Your task to perform on an android device: turn notification dots on Image 0: 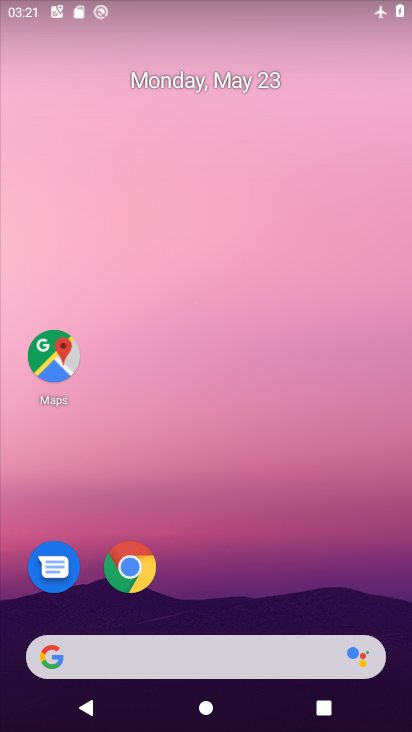
Step 0: drag from (43, 672) to (14, 700)
Your task to perform on an android device: turn notification dots on Image 1: 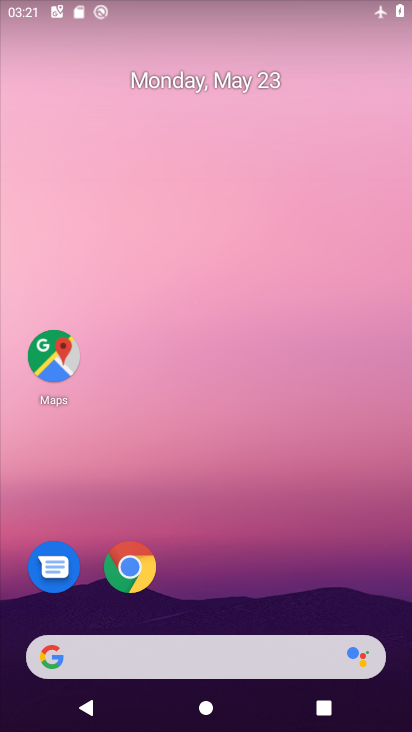
Step 1: drag from (4, 702) to (271, 157)
Your task to perform on an android device: turn notification dots on Image 2: 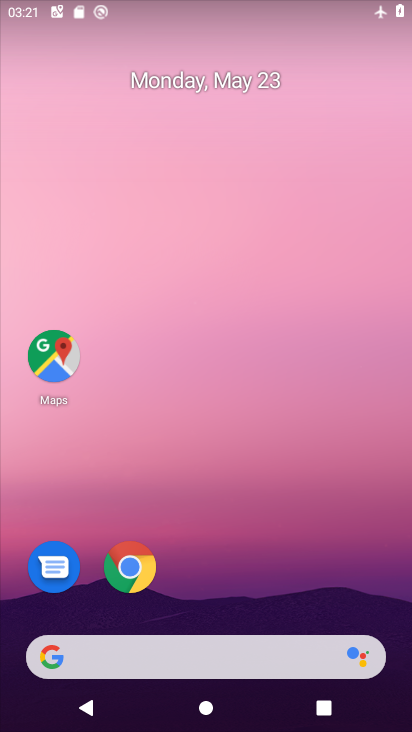
Step 2: drag from (120, 441) to (269, 100)
Your task to perform on an android device: turn notification dots on Image 3: 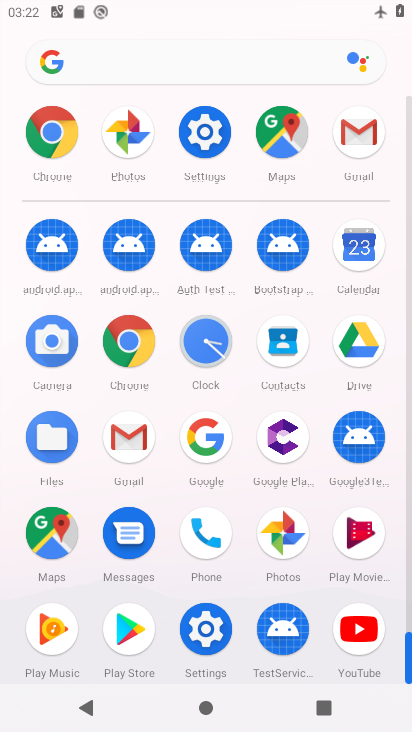
Step 3: click (191, 628)
Your task to perform on an android device: turn notification dots on Image 4: 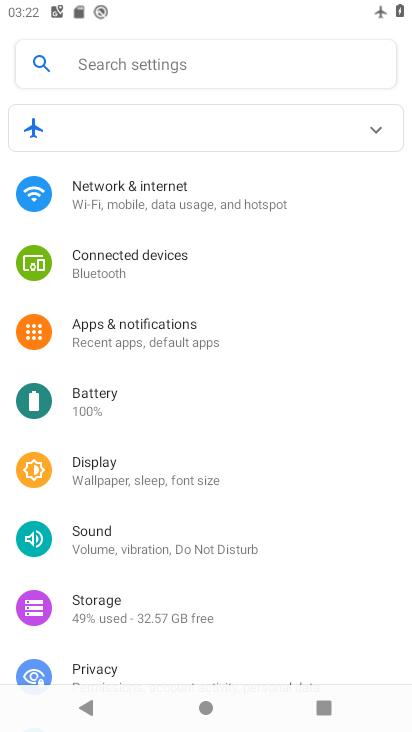
Step 4: click (162, 334)
Your task to perform on an android device: turn notification dots on Image 5: 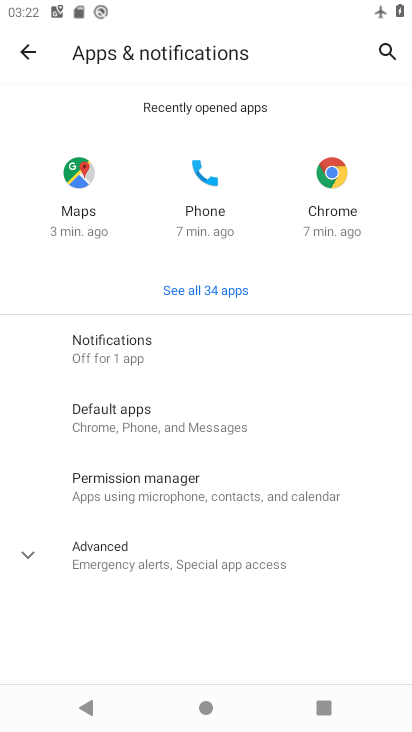
Step 5: click (165, 344)
Your task to perform on an android device: turn notification dots on Image 6: 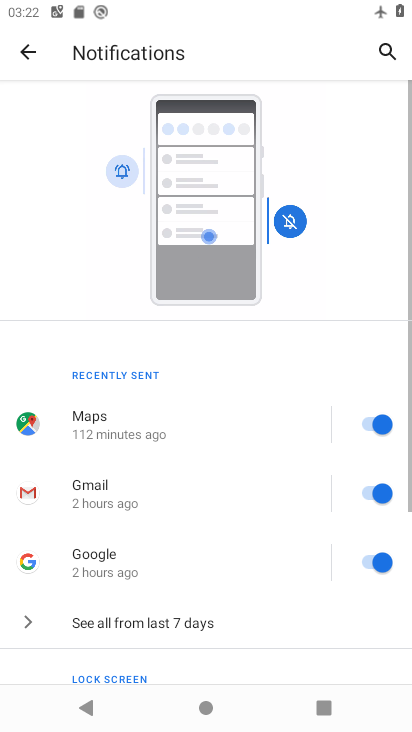
Step 6: drag from (12, 640) to (247, 174)
Your task to perform on an android device: turn notification dots on Image 7: 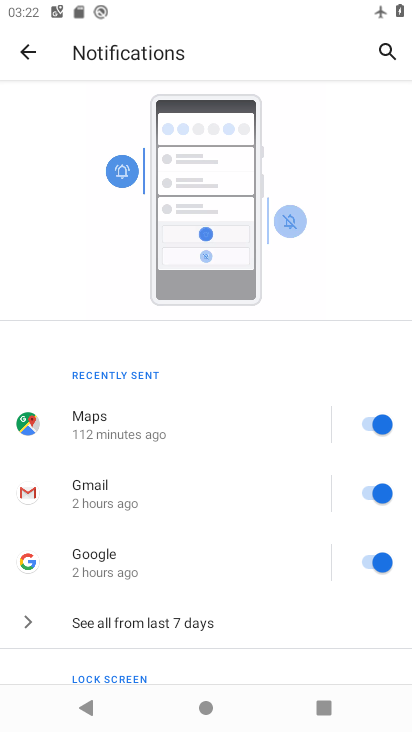
Step 7: drag from (29, 520) to (208, 202)
Your task to perform on an android device: turn notification dots on Image 8: 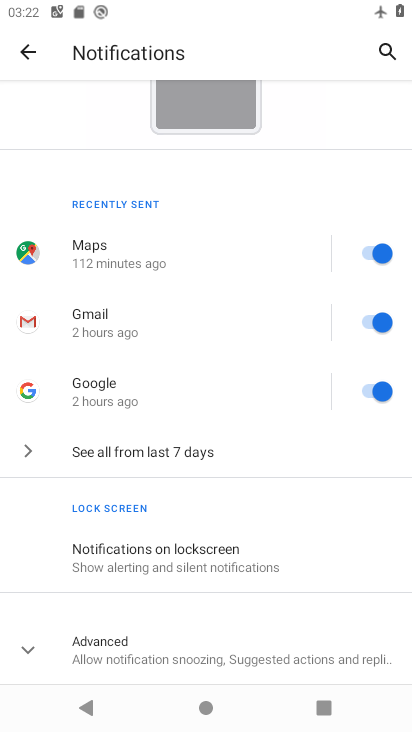
Step 8: click (146, 646)
Your task to perform on an android device: turn notification dots on Image 9: 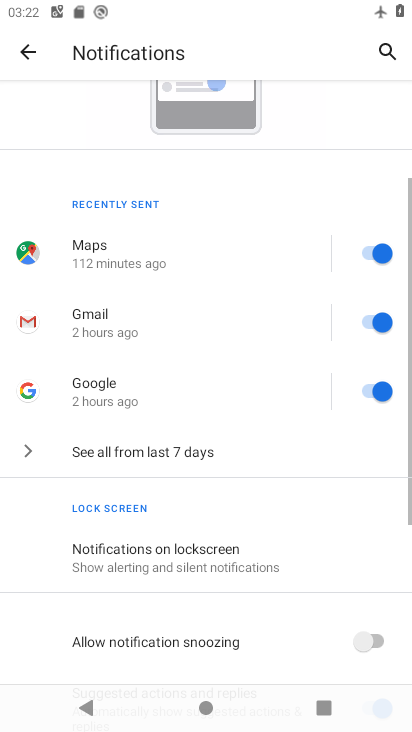
Step 9: task complete